Your task to perform on an android device: Open Google Chrome and open the bookmarks view Image 0: 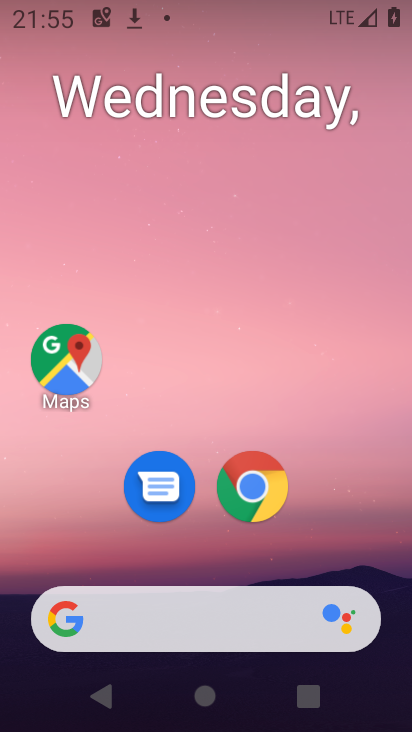
Step 0: click (256, 506)
Your task to perform on an android device: Open Google Chrome and open the bookmarks view Image 1: 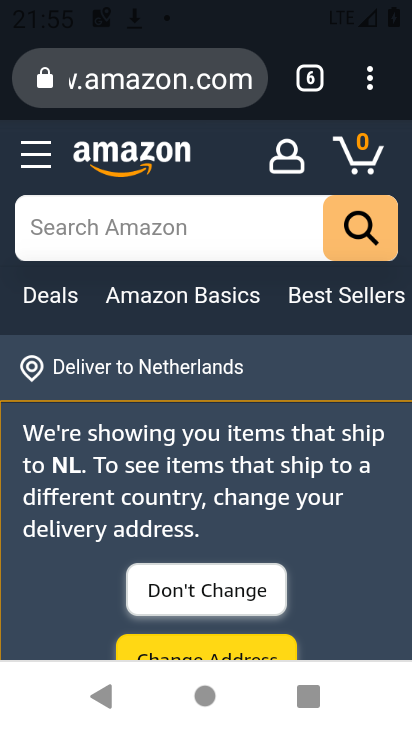
Step 1: task complete